Your task to perform on an android device: toggle improve location accuracy Image 0: 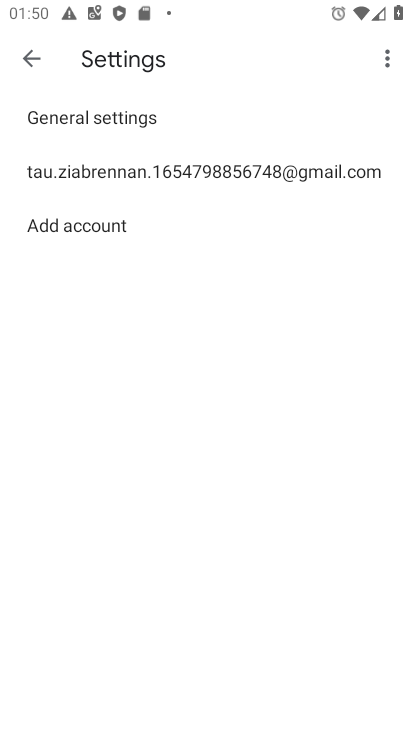
Step 0: press home button
Your task to perform on an android device: toggle improve location accuracy Image 1: 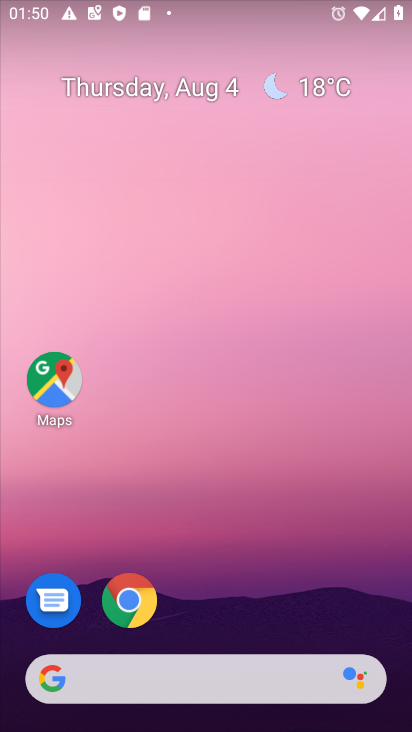
Step 1: drag from (158, 666) to (317, 71)
Your task to perform on an android device: toggle improve location accuracy Image 2: 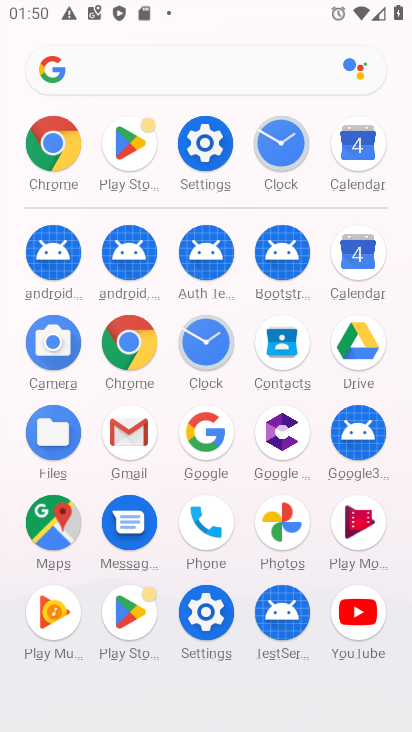
Step 2: click (205, 140)
Your task to perform on an android device: toggle improve location accuracy Image 3: 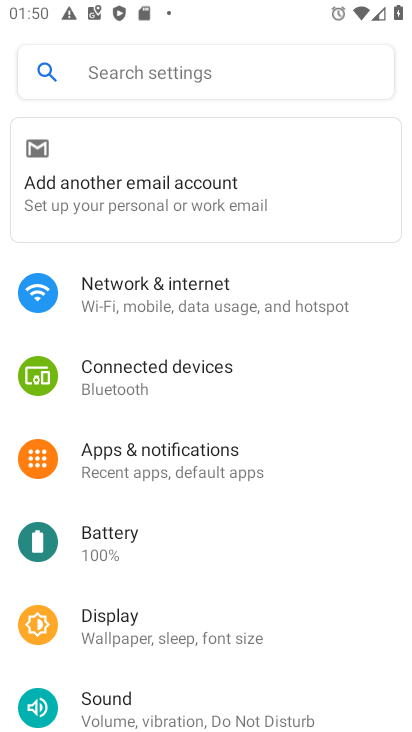
Step 3: drag from (195, 683) to (368, 170)
Your task to perform on an android device: toggle improve location accuracy Image 4: 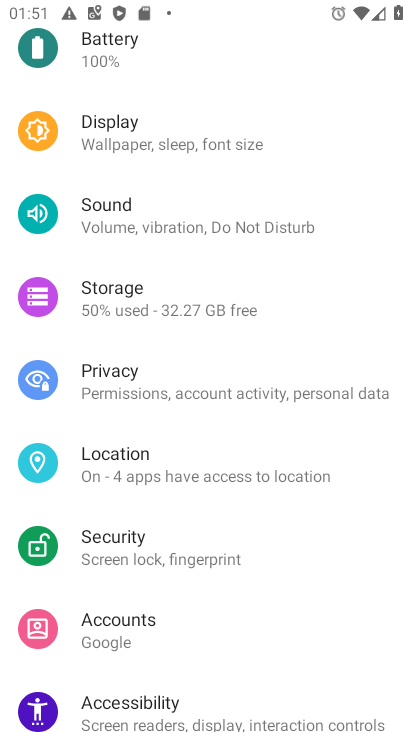
Step 4: click (163, 465)
Your task to perform on an android device: toggle improve location accuracy Image 5: 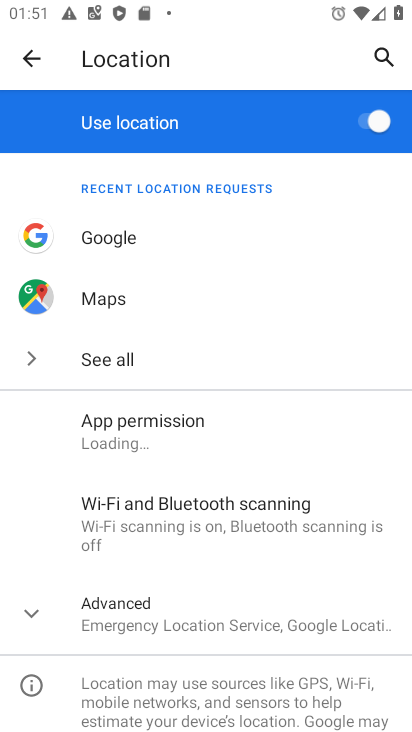
Step 5: drag from (163, 564) to (323, 143)
Your task to perform on an android device: toggle improve location accuracy Image 6: 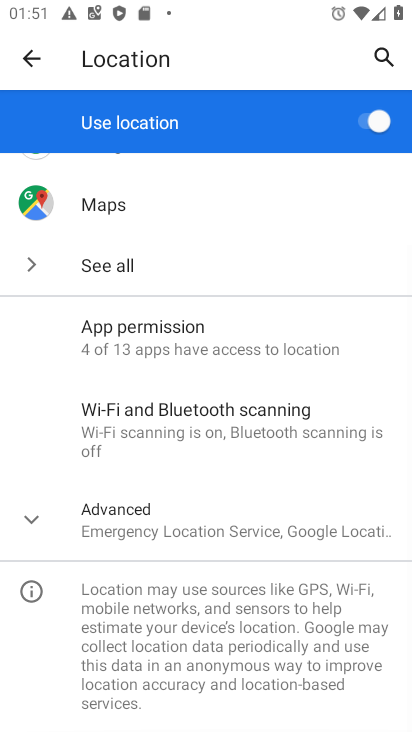
Step 6: click (146, 523)
Your task to perform on an android device: toggle improve location accuracy Image 7: 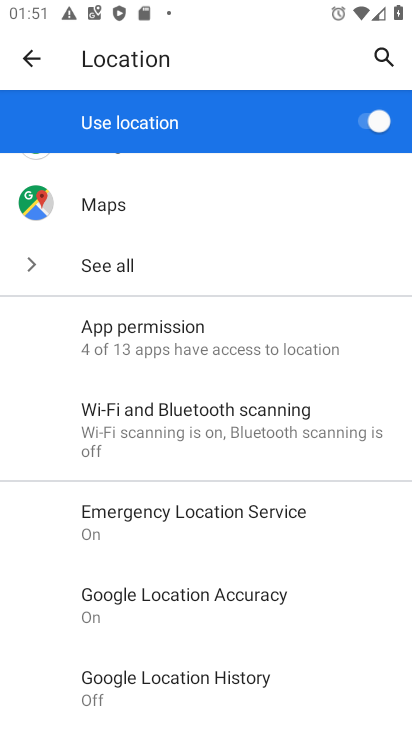
Step 7: click (216, 596)
Your task to perform on an android device: toggle improve location accuracy Image 8: 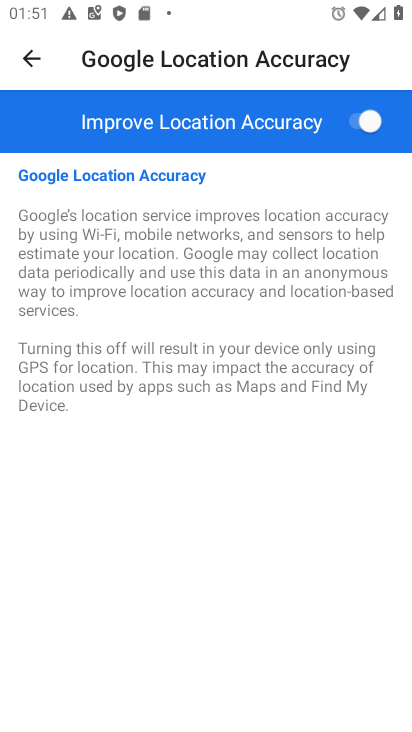
Step 8: click (356, 117)
Your task to perform on an android device: toggle improve location accuracy Image 9: 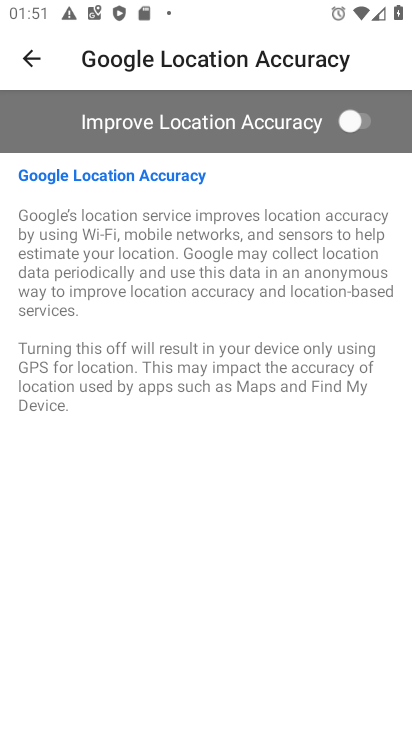
Step 9: task complete